Your task to perform on an android device: toggle airplane mode Image 0: 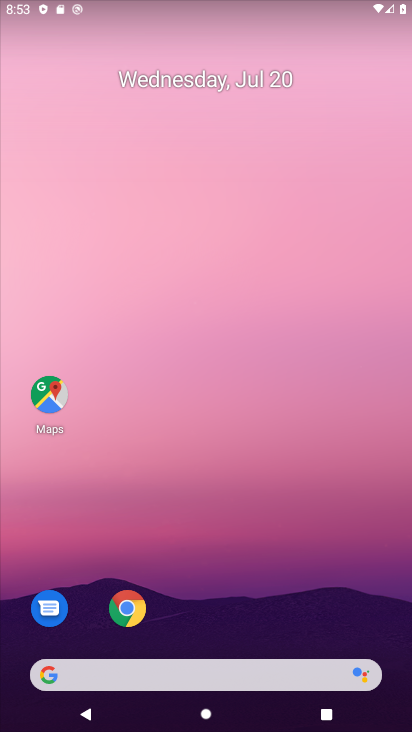
Step 0: drag from (274, 609) to (164, 200)
Your task to perform on an android device: toggle airplane mode Image 1: 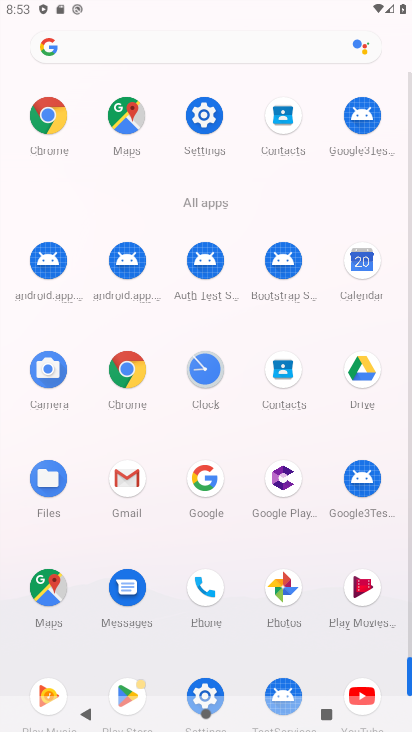
Step 1: drag from (239, 505) to (159, 213)
Your task to perform on an android device: toggle airplane mode Image 2: 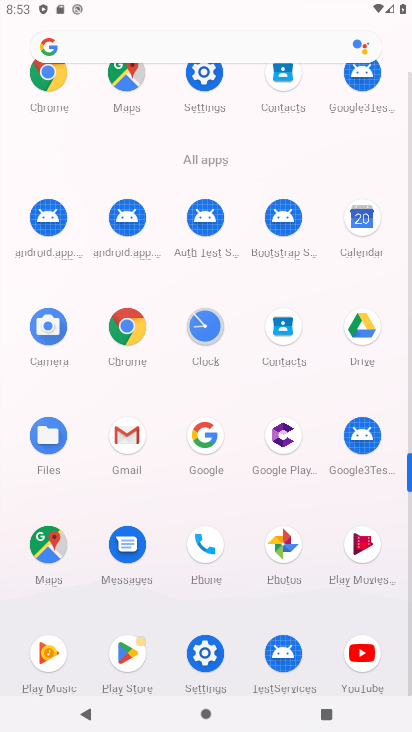
Step 2: click (201, 123)
Your task to perform on an android device: toggle airplane mode Image 3: 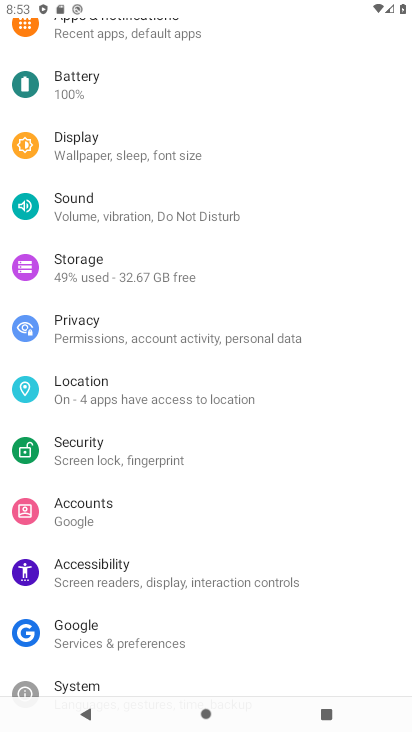
Step 3: drag from (111, 94) to (152, 635)
Your task to perform on an android device: toggle airplane mode Image 4: 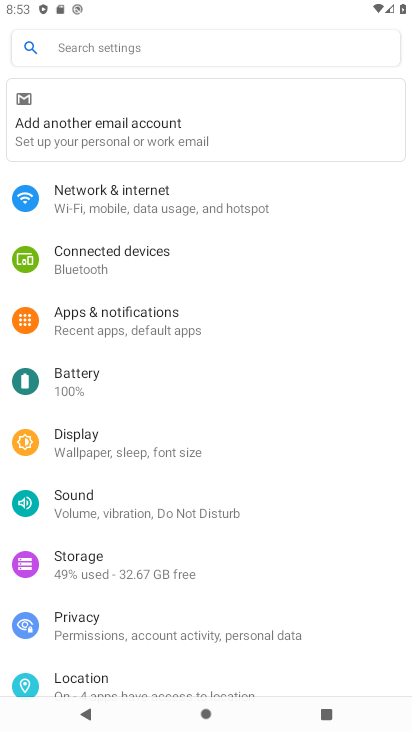
Step 4: click (102, 192)
Your task to perform on an android device: toggle airplane mode Image 5: 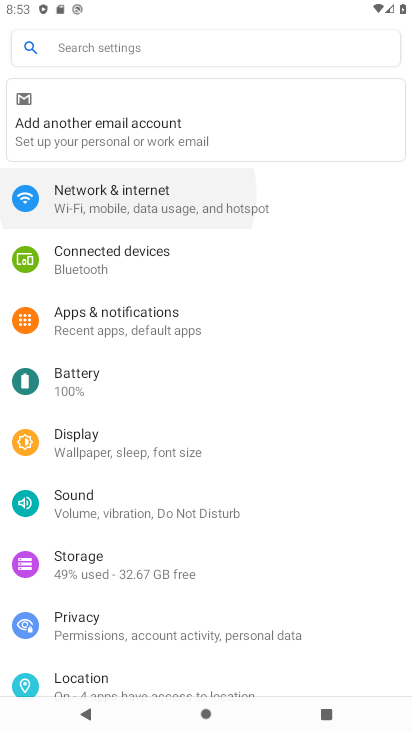
Step 5: click (104, 196)
Your task to perform on an android device: toggle airplane mode Image 6: 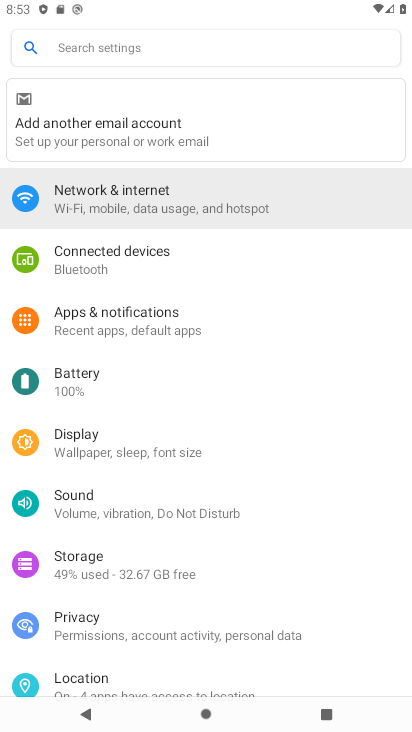
Step 6: click (104, 196)
Your task to perform on an android device: toggle airplane mode Image 7: 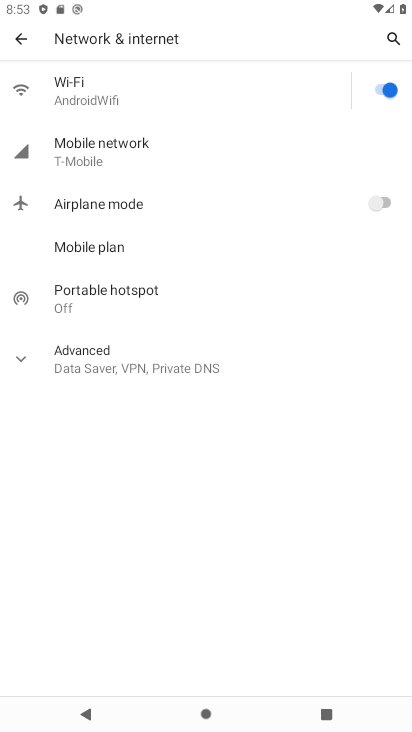
Step 7: click (380, 193)
Your task to perform on an android device: toggle airplane mode Image 8: 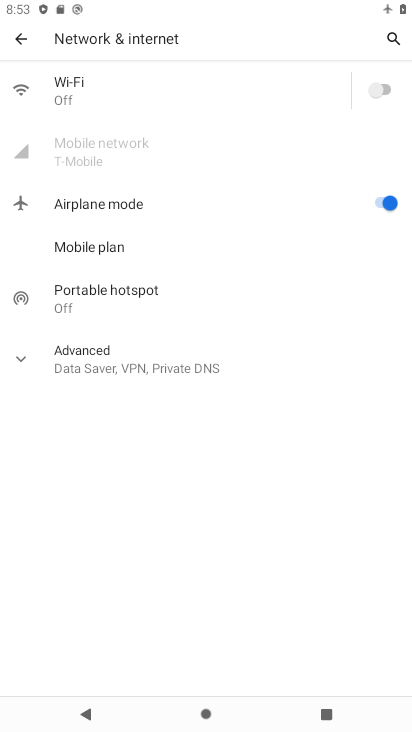
Step 8: task complete